Your task to perform on an android device: What's the weather? Image 0: 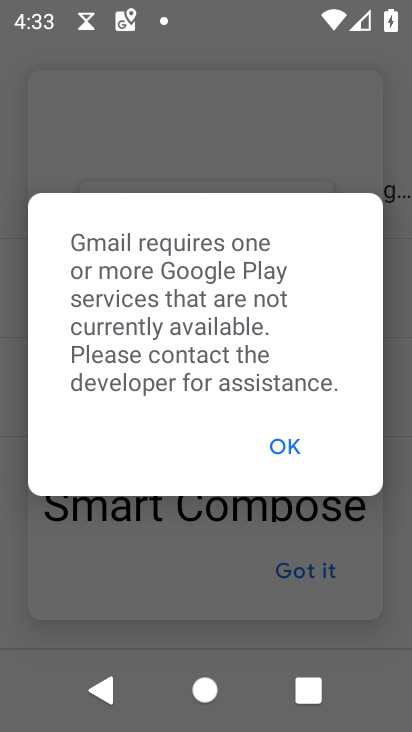
Step 0: press home button
Your task to perform on an android device: What's the weather? Image 1: 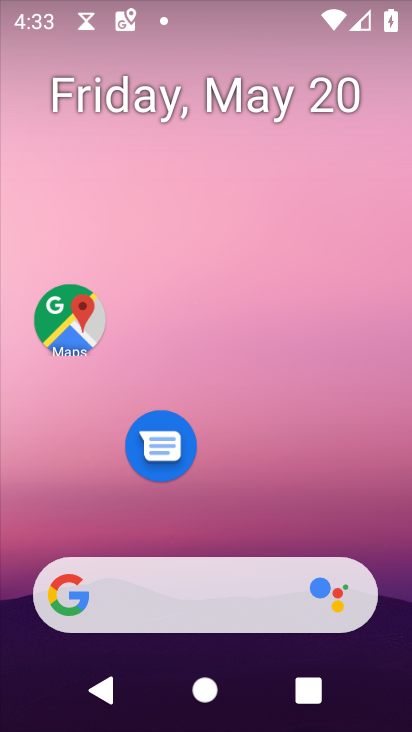
Step 1: click (181, 598)
Your task to perform on an android device: What's the weather? Image 2: 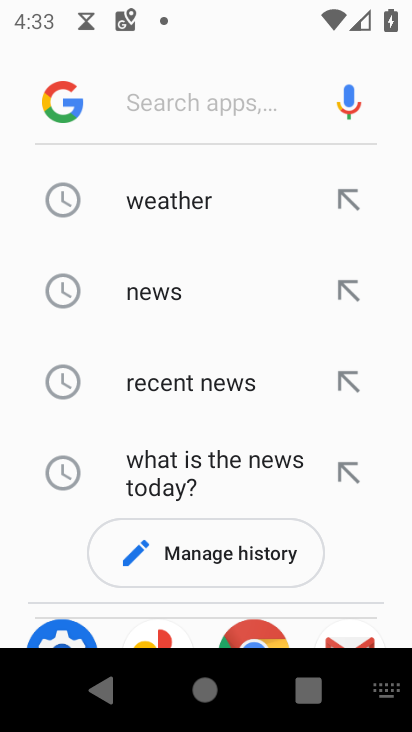
Step 2: click (206, 213)
Your task to perform on an android device: What's the weather? Image 3: 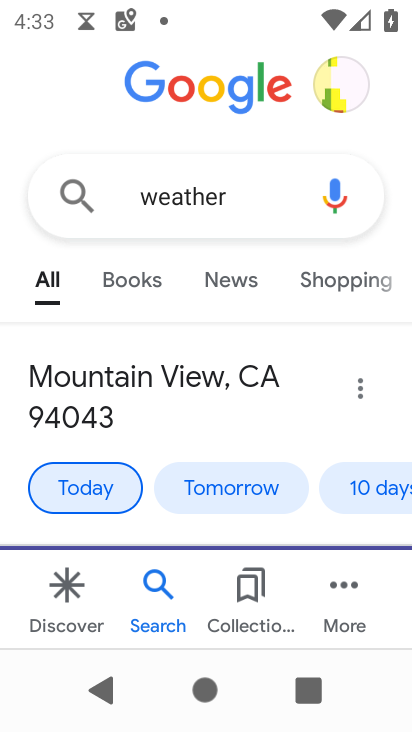
Step 3: task complete